Your task to perform on an android device: turn on bluetooth scan Image 0: 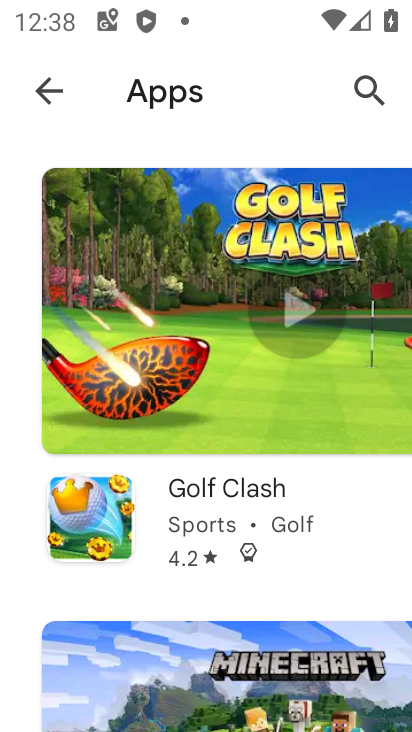
Step 0: press home button
Your task to perform on an android device: turn on bluetooth scan Image 1: 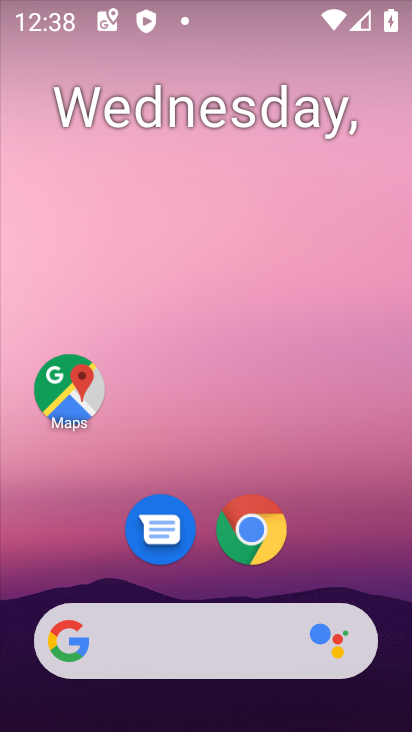
Step 1: drag from (403, 643) to (329, 88)
Your task to perform on an android device: turn on bluetooth scan Image 2: 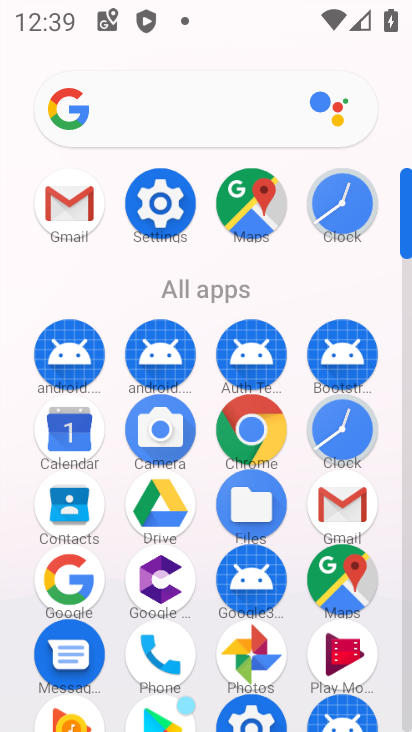
Step 2: click (407, 706)
Your task to perform on an android device: turn on bluetooth scan Image 3: 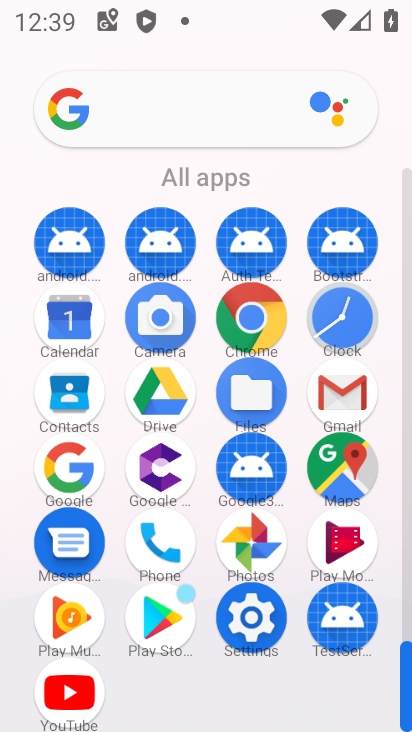
Step 3: click (252, 617)
Your task to perform on an android device: turn on bluetooth scan Image 4: 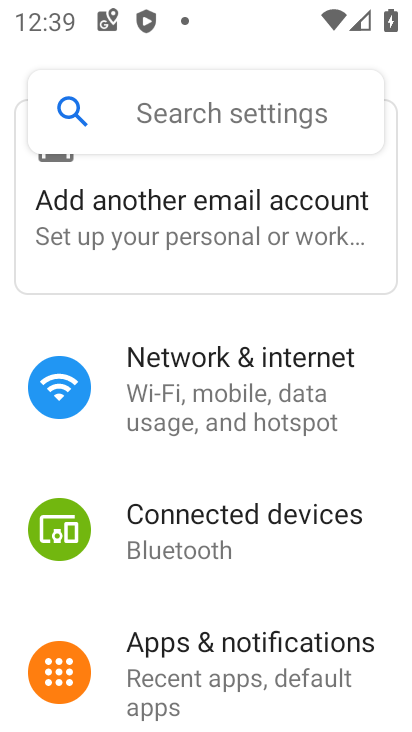
Step 4: drag from (406, 668) to (357, 135)
Your task to perform on an android device: turn on bluetooth scan Image 5: 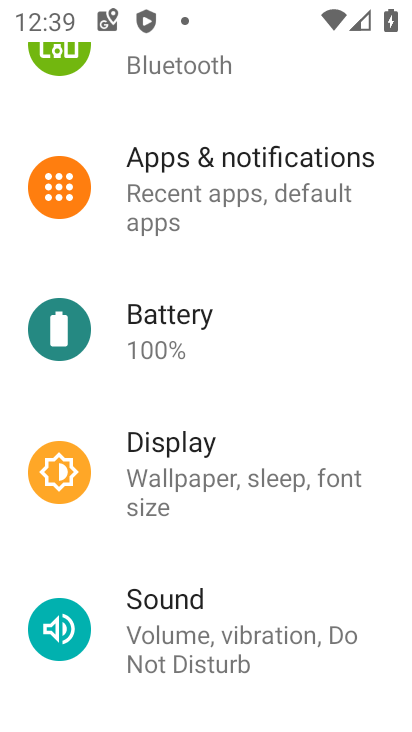
Step 5: drag from (386, 670) to (334, 215)
Your task to perform on an android device: turn on bluetooth scan Image 6: 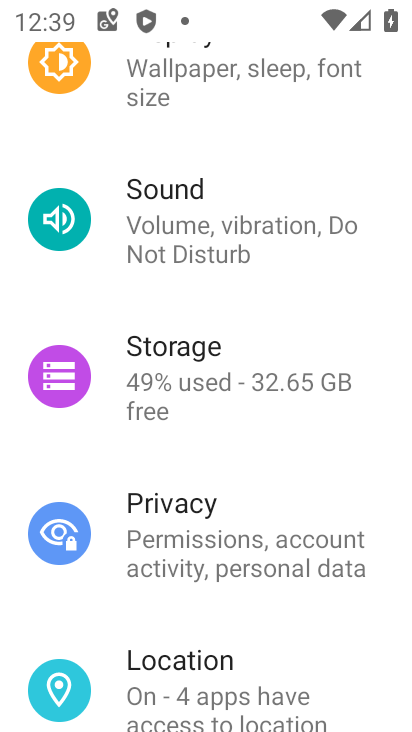
Step 6: drag from (362, 684) to (351, 231)
Your task to perform on an android device: turn on bluetooth scan Image 7: 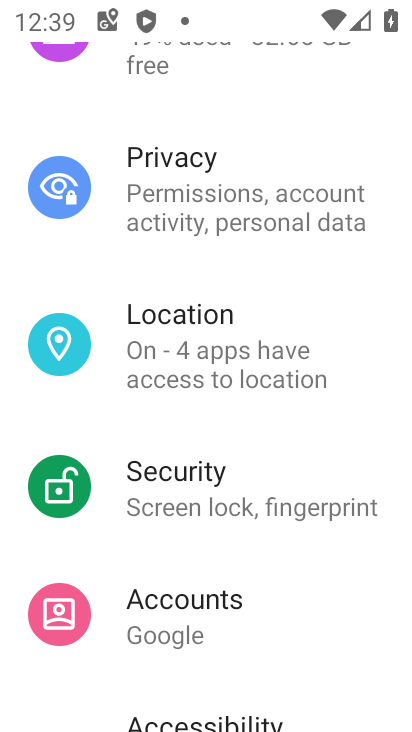
Step 7: click (155, 331)
Your task to perform on an android device: turn on bluetooth scan Image 8: 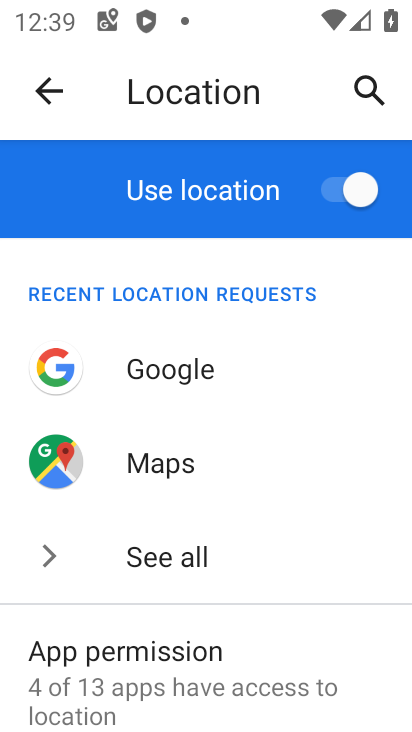
Step 8: drag from (291, 657) to (245, 272)
Your task to perform on an android device: turn on bluetooth scan Image 9: 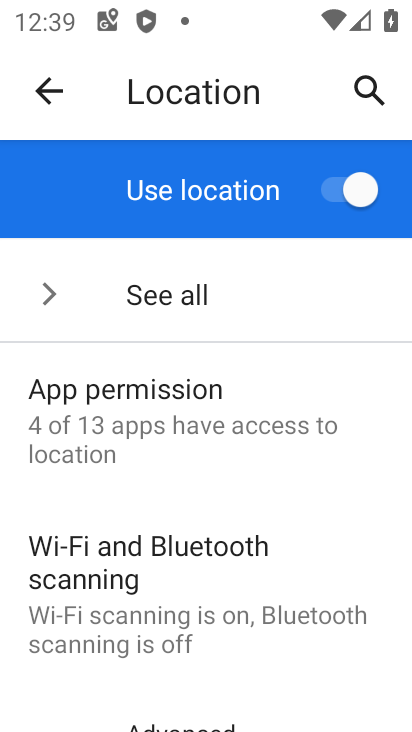
Step 9: click (88, 596)
Your task to perform on an android device: turn on bluetooth scan Image 10: 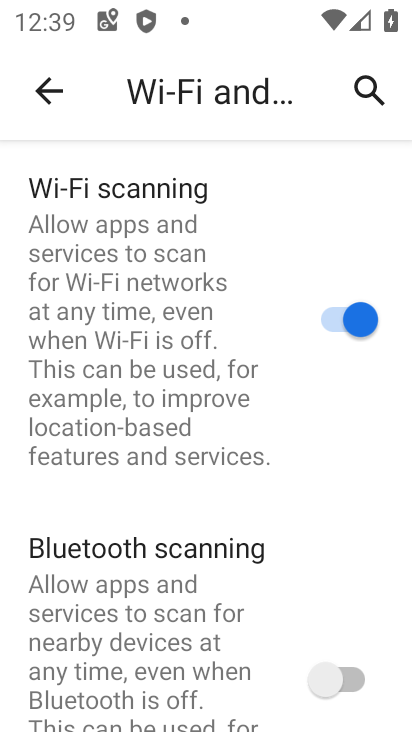
Step 10: click (361, 680)
Your task to perform on an android device: turn on bluetooth scan Image 11: 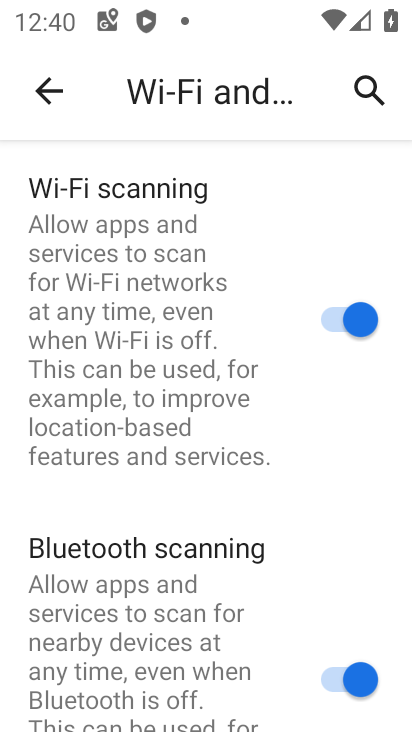
Step 11: task complete